Your task to perform on an android device: Go to Maps Image 0: 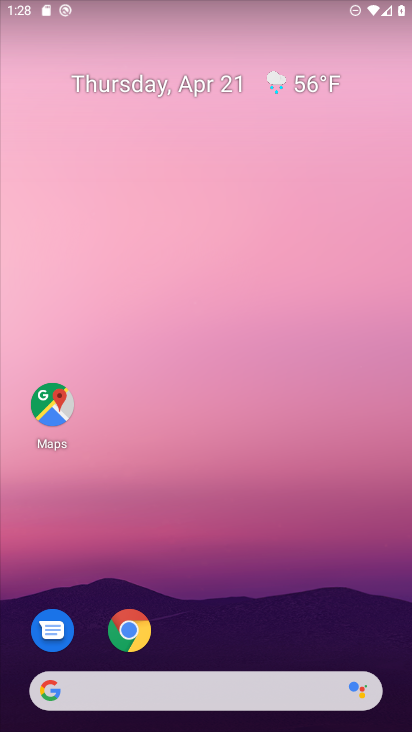
Step 0: click (66, 419)
Your task to perform on an android device: Go to Maps Image 1: 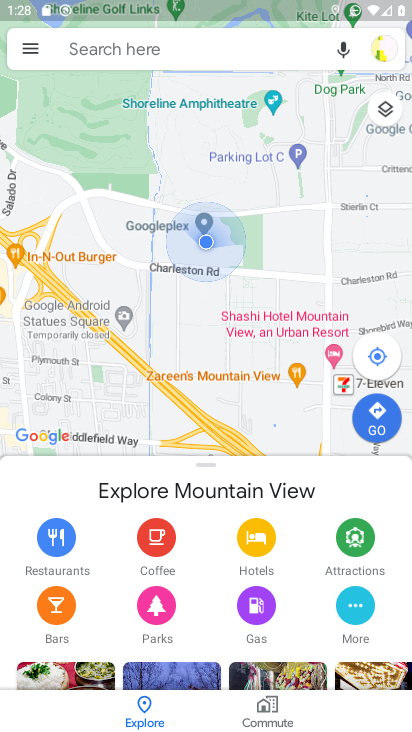
Step 1: task complete